Your task to perform on an android device: Open Yahoo.com Image 0: 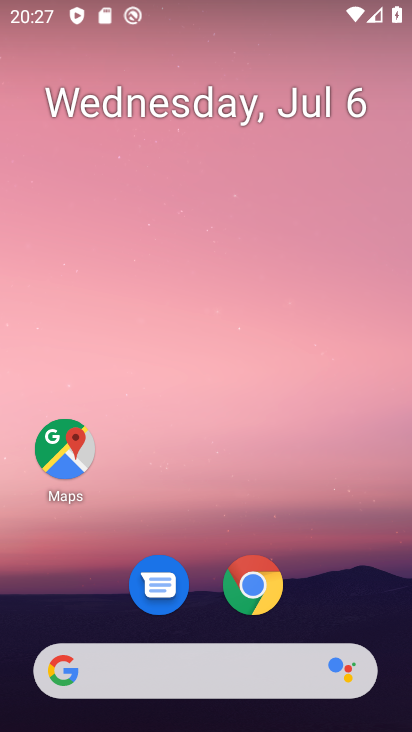
Step 0: drag from (218, 515) to (250, 357)
Your task to perform on an android device: Open Yahoo.com Image 1: 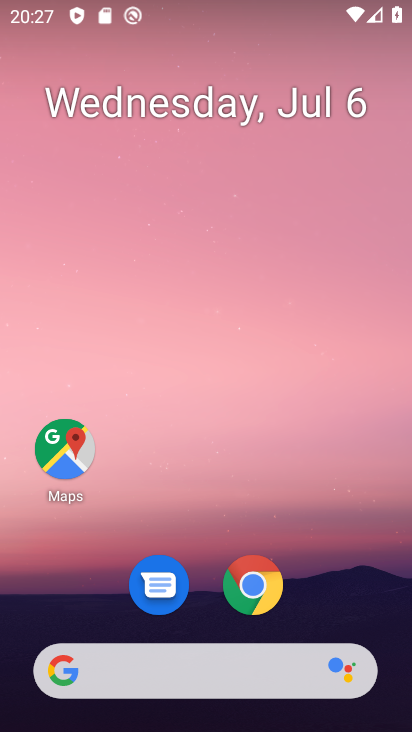
Step 1: click (257, 583)
Your task to perform on an android device: Open Yahoo.com Image 2: 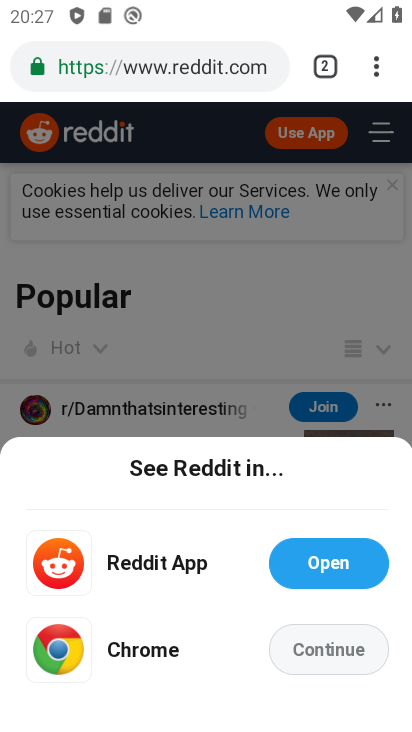
Step 2: click (270, 60)
Your task to perform on an android device: Open Yahoo.com Image 3: 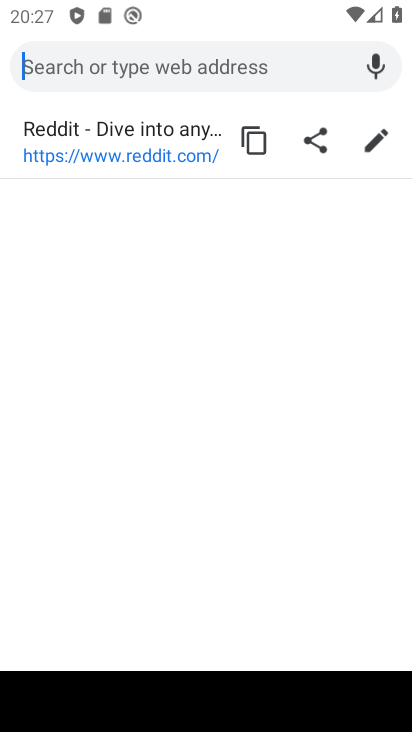
Step 3: type "yahoo.com"
Your task to perform on an android device: Open Yahoo.com Image 4: 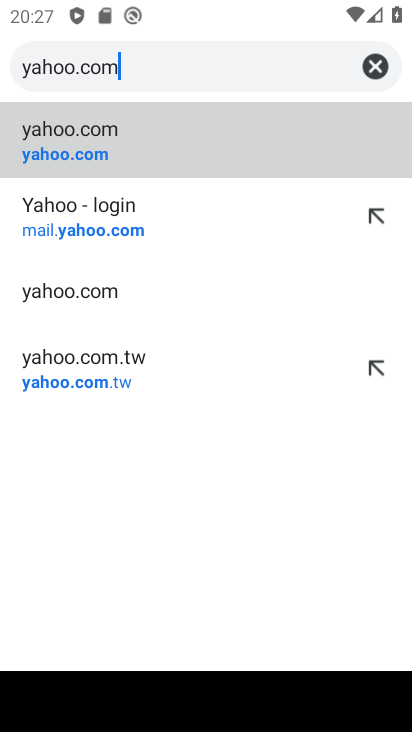
Step 4: click (85, 150)
Your task to perform on an android device: Open Yahoo.com Image 5: 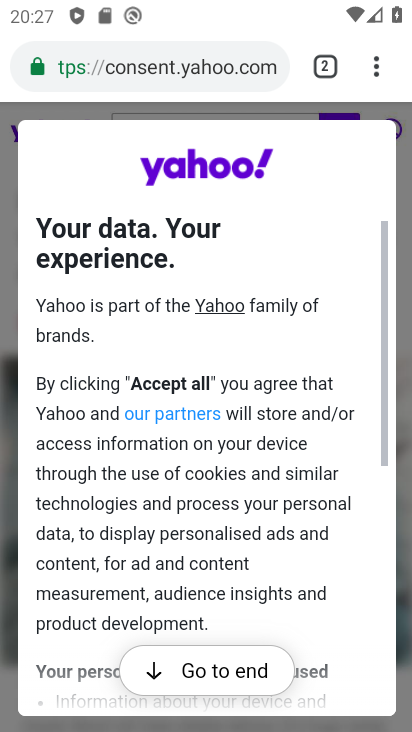
Step 5: click (262, 667)
Your task to perform on an android device: Open Yahoo.com Image 6: 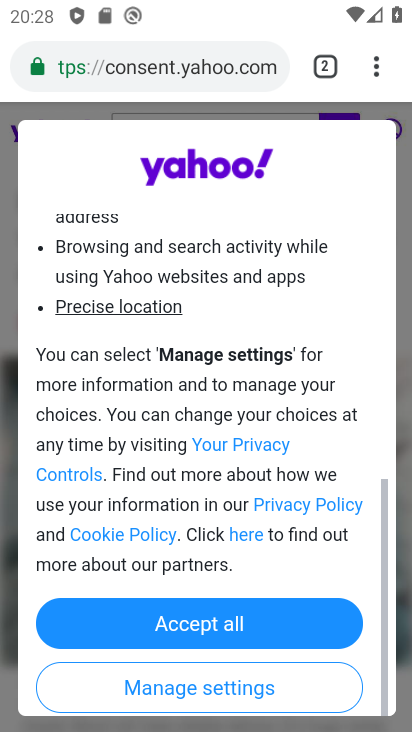
Step 6: click (318, 630)
Your task to perform on an android device: Open Yahoo.com Image 7: 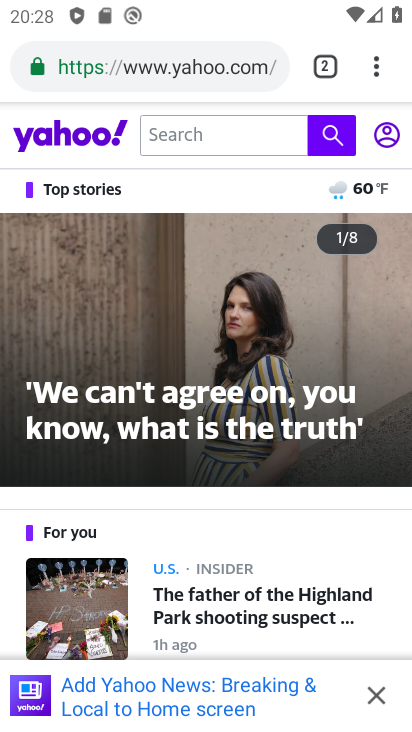
Step 7: task complete